Your task to perform on an android device: Open the stopwatch Image 0: 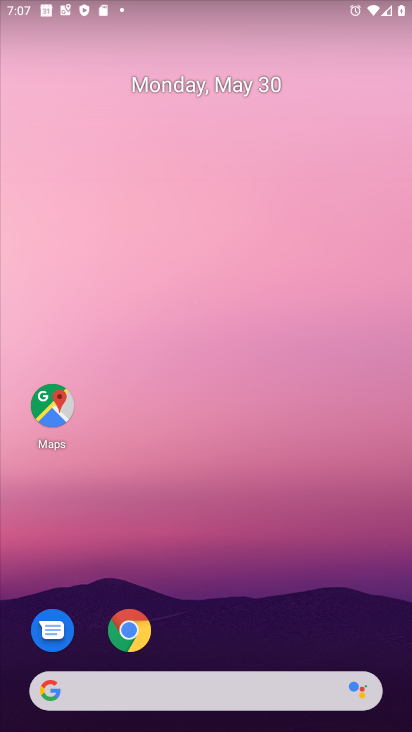
Step 0: drag from (329, 625) to (222, 15)
Your task to perform on an android device: Open the stopwatch Image 1: 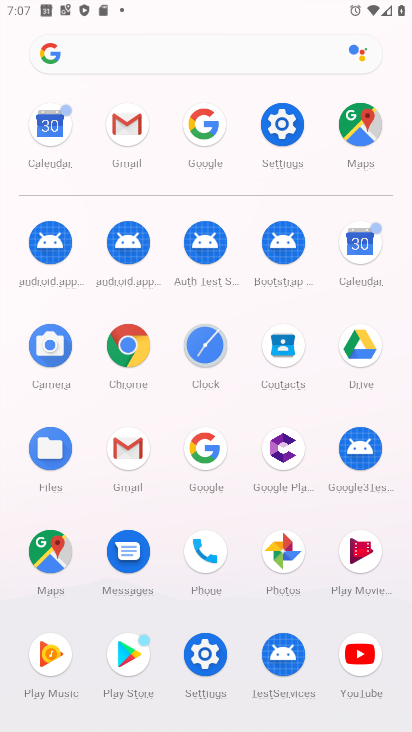
Step 1: click (201, 349)
Your task to perform on an android device: Open the stopwatch Image 2: 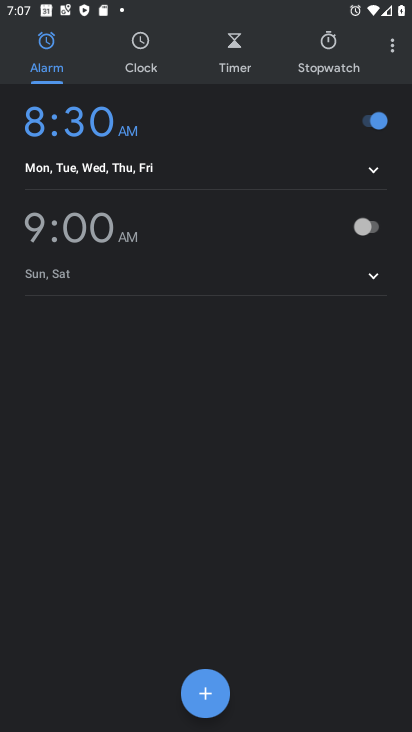
Step 2: click (342, 51)
Your task to perform on an android device: Open the stopwatch Image 3: 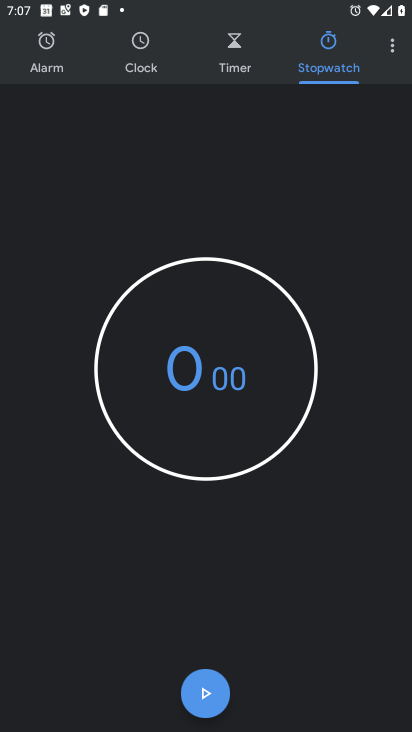
Step 3: click (205, 683)
Your task to perform on an android device: Open the stopwatch Image 4: 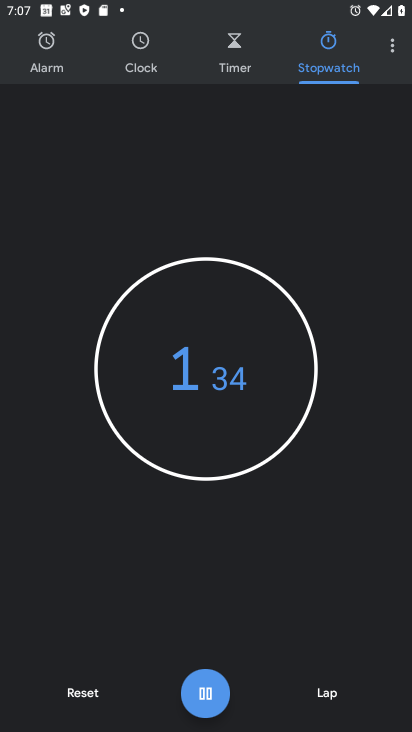
Step 4: click (205, 683)
Your task to perform on an android device: Open the stopwatch Image 5: 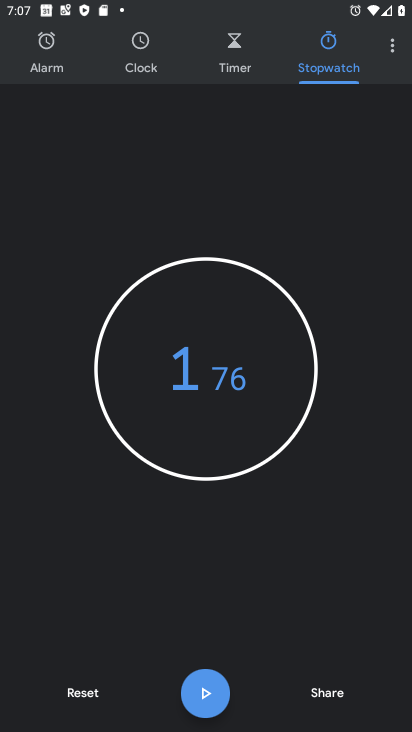
Step 5: task complete